Your task to perform on an android device: Open settings on Google Maps Image 0: 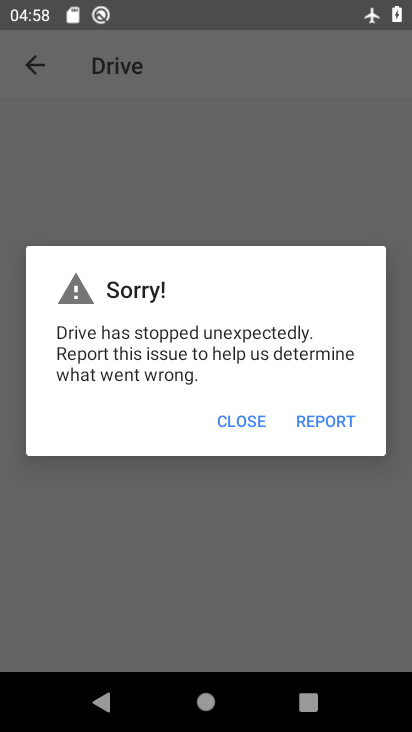
Step 0: press home button
Your task to perform on an android device: Open settings on Google Maps Image 1: 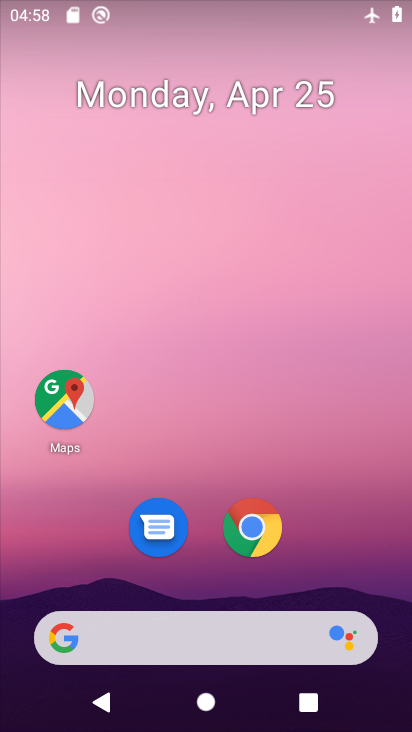
Step 1: click (64, 399)
Your task to perform on an android device: Open settings on Google Maps Image 2: 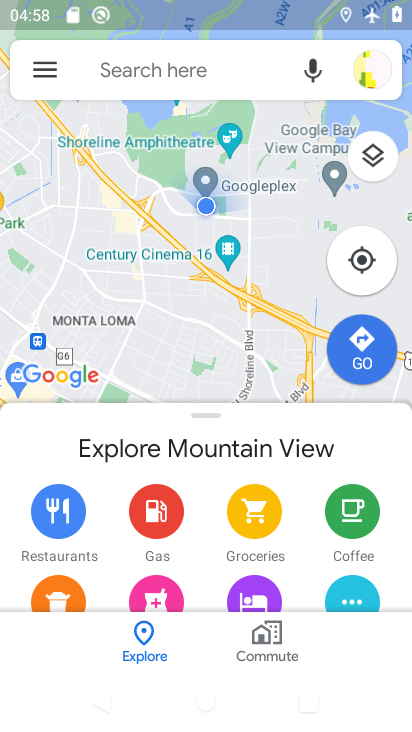
Step 2: click (41, 69)
Your task to perform on an android device: Open settings on Google Maps Image 3: 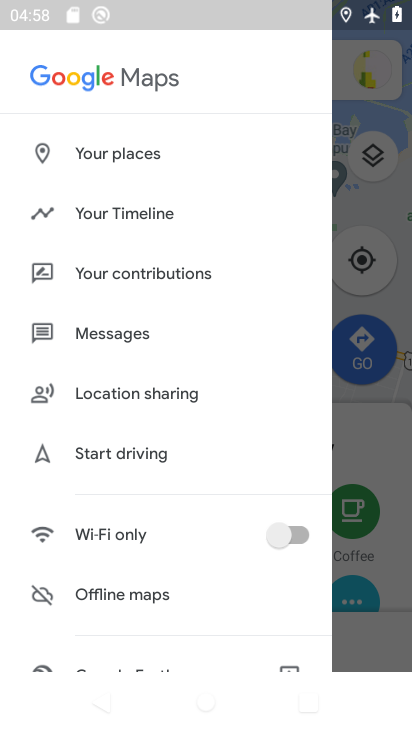
Step 3: drag from (180, 595) to (271, 200)
Your task to perform on an android device: Open settings on Google Maps Image 4: 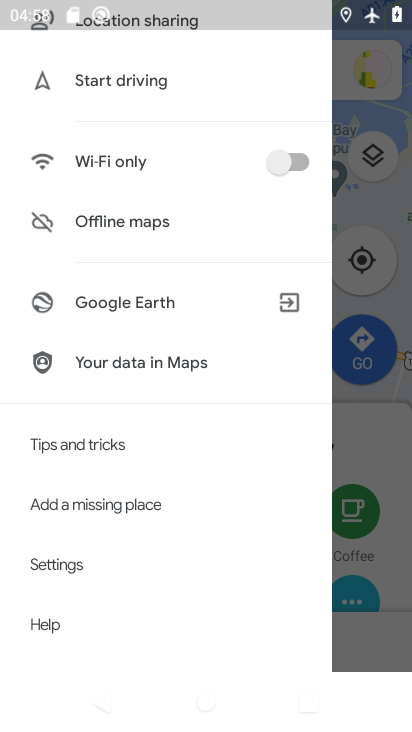
Step 4: click (56, 560)
Your task to perform on an android device: Open settings on Google Maps Image 5: 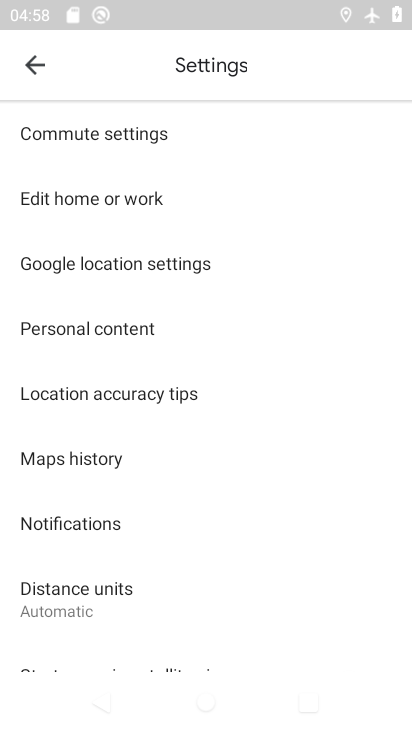
Step 5: task complete